Your task to perform on an android device: turn on data saver in the chrome app Image 0: 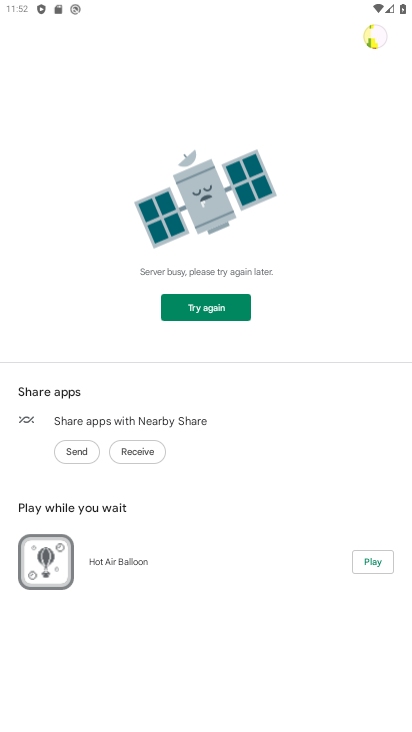
Step 0: press home button
Your task to perform on an android device: turn on data saver in the chrome app Image 1: 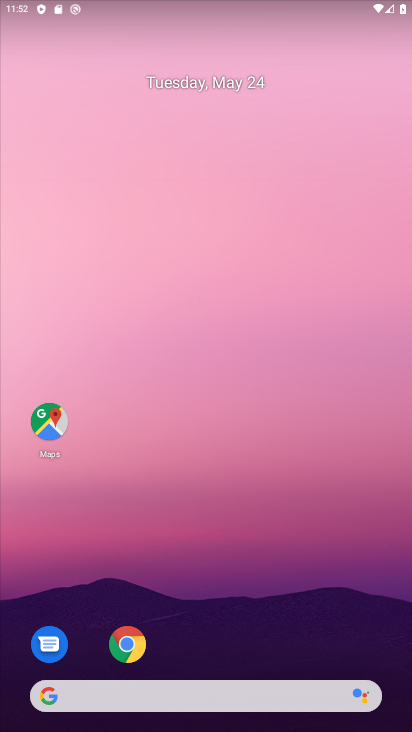
Step 1: click (126, 640)
Your task to perform on an android device: turn on data saver in the chrome app Image 2: 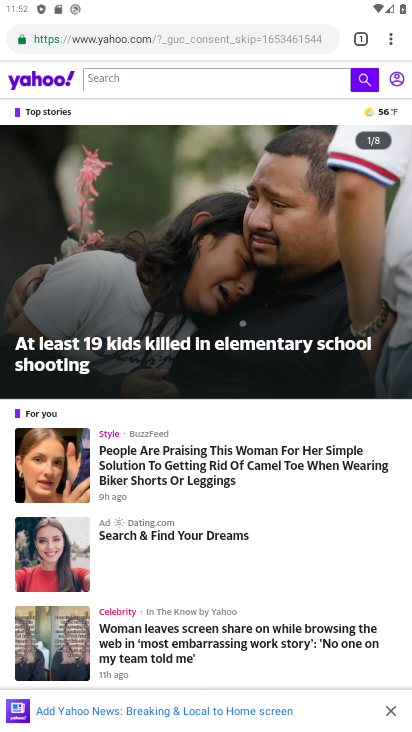
Step 2: drag from (392, 28) to (304, 474)
Your task to perform on an android device: turn on data saver in the chrome app Image 3: 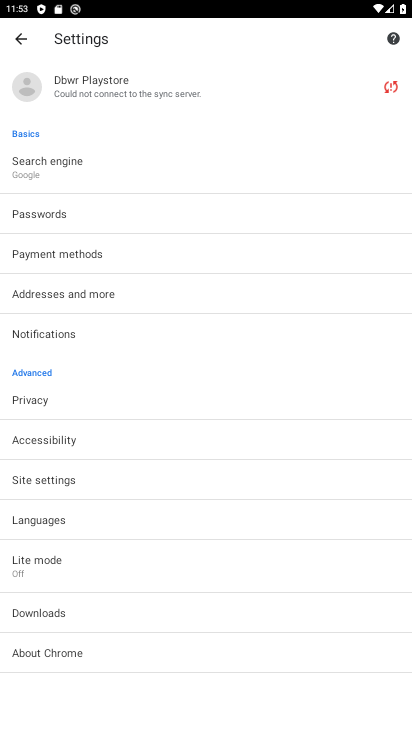
Step 3: click (74, 573)
Your task to perform on an android device: turn on data saver in the chrome app Image 4: 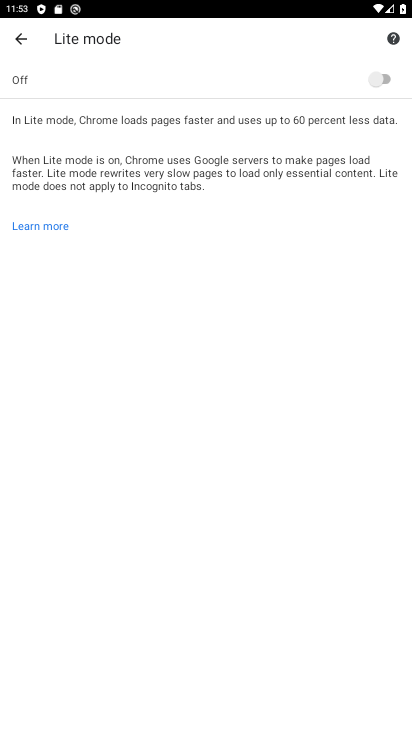
Step 4: click (401, 71)
Your task to perform on an android device: turn on data saver in the chrome app Image 5: 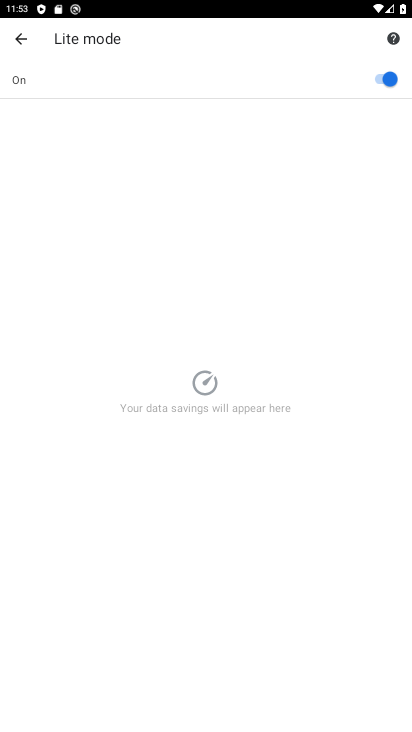
Step 5: task complete